Your task to perform on an android device: Open maps Image 0: 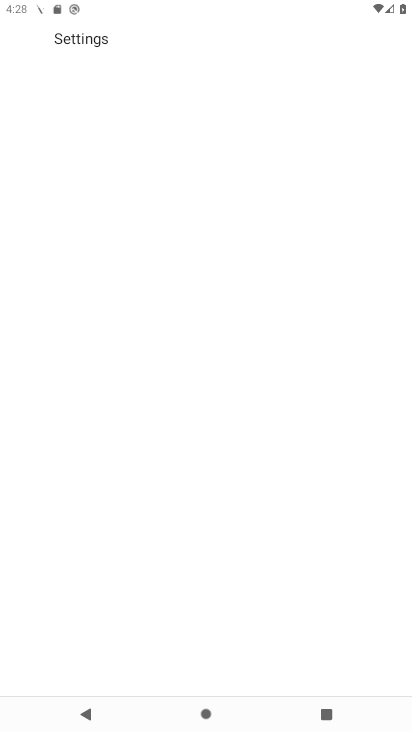
Step 0: drag from (264, 603) to (299, 272)
Your task to perform on an android device: Open maps Image 1: 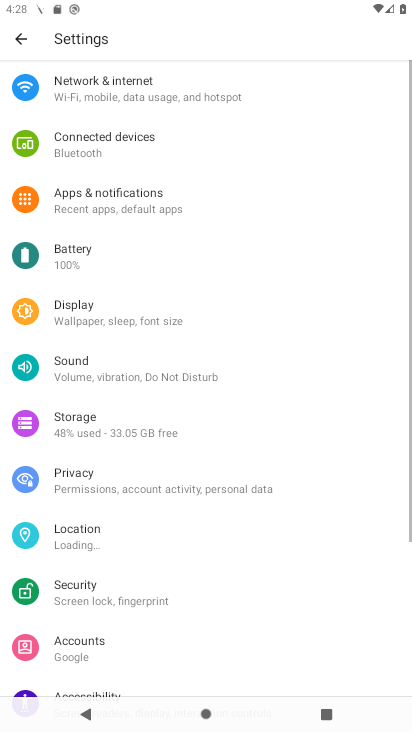
Step 1: press home button
Your task to perform on an android device: Open maps Image 2: 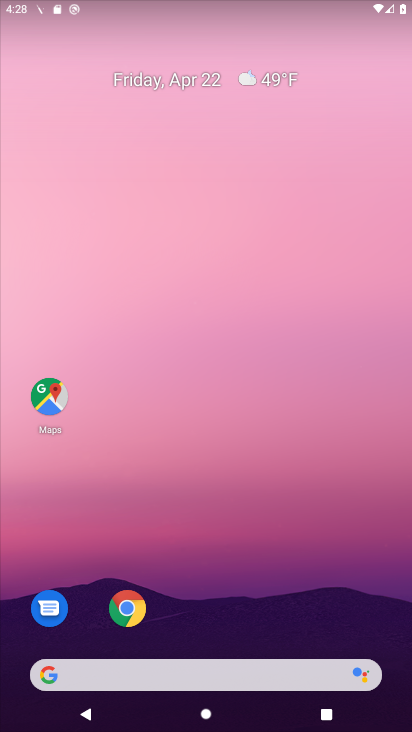
Step 2: drag from (267, 432) to (315, 186)
Your task to perform on an android device: Open maps Image 3: 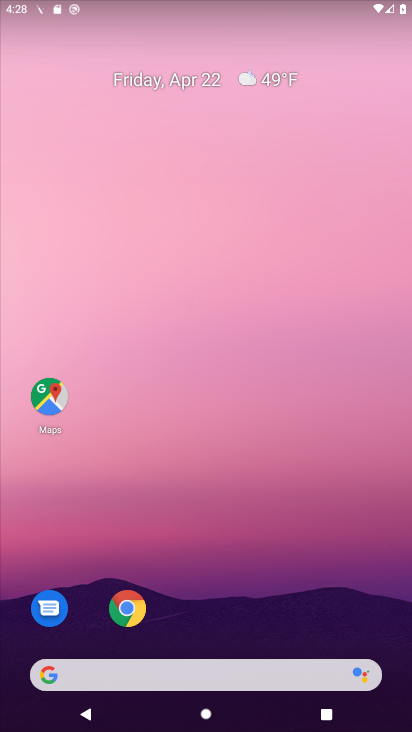
Step 3: drag from (209, 513) to (265, 102)
Your task to perform on an android device: Open maps Image 4: 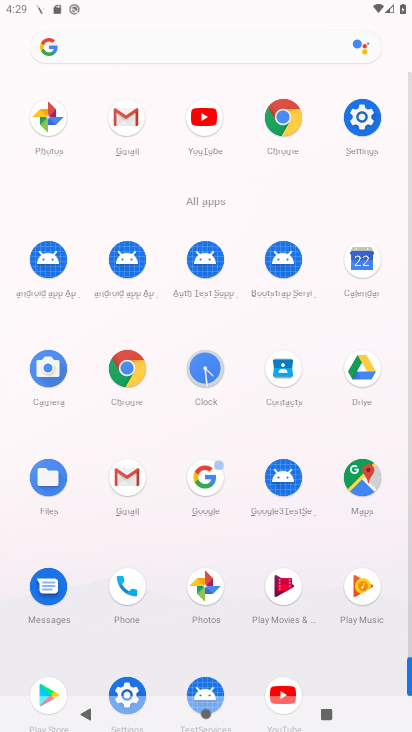
Step 4: click (362, 491)
Your task to perform on an android device: Open maps Image 5: 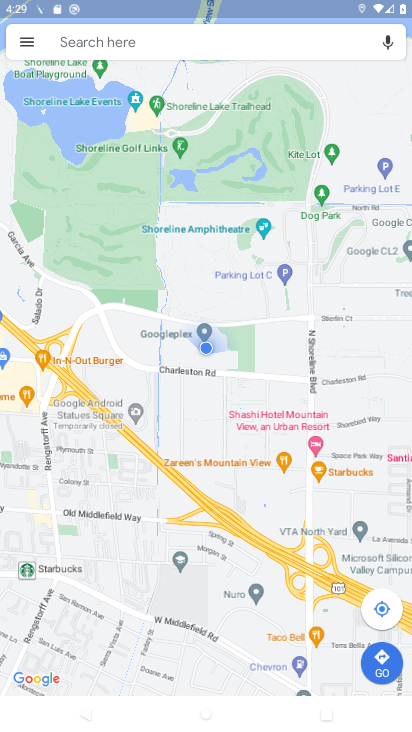
Step 5: task complete